Your task to perform on an android device: Open the web browser Image 0: 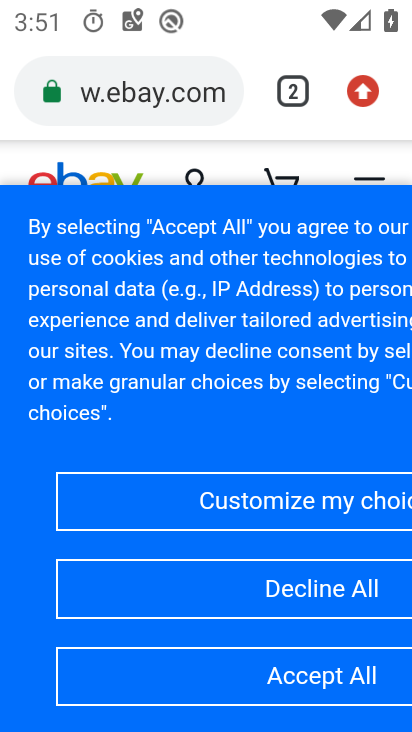
Step 0: click (296, 90)
Your task to perform on an android device: Open the web browser Image 1: 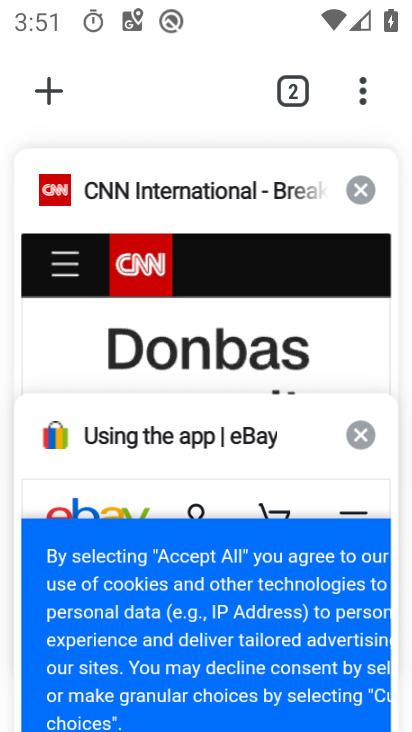
Step 1: click (49, 102)
Your task to perform on an android device: Open the web browser Image 2: 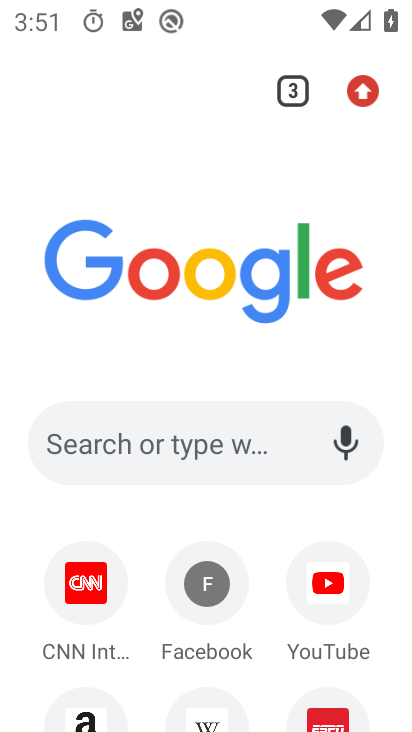
Step 2: task complete